Your task to perform on an android device: open chrome privacy settings Image 0: 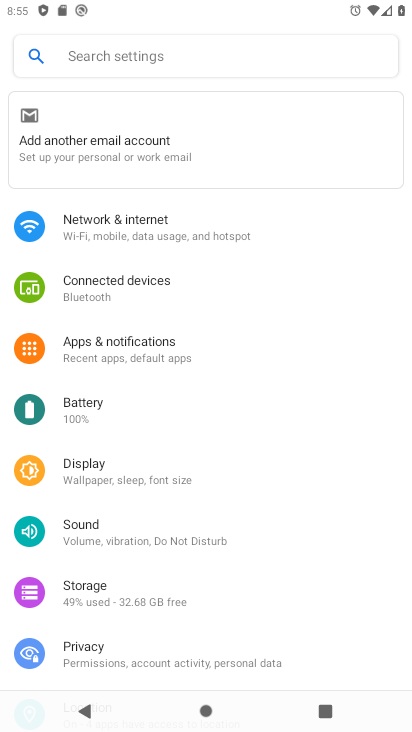
Step 0: press home button
Your task to perform on an android device: open chrome privacy settings Image 1: 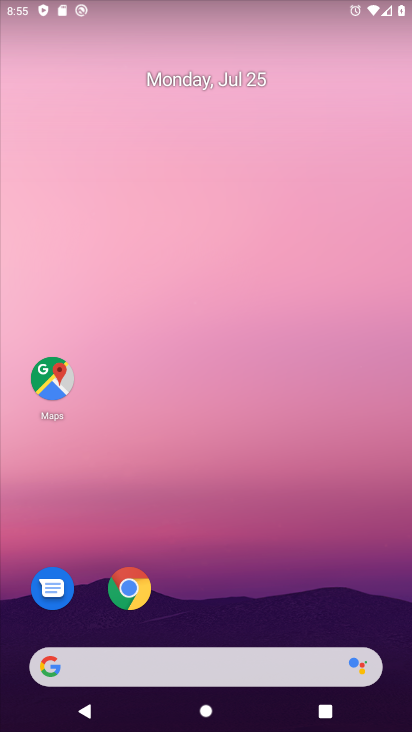
Step 1: click (131, 584)
Your task to perform on an android device: open chrome privacy settings Image 2: 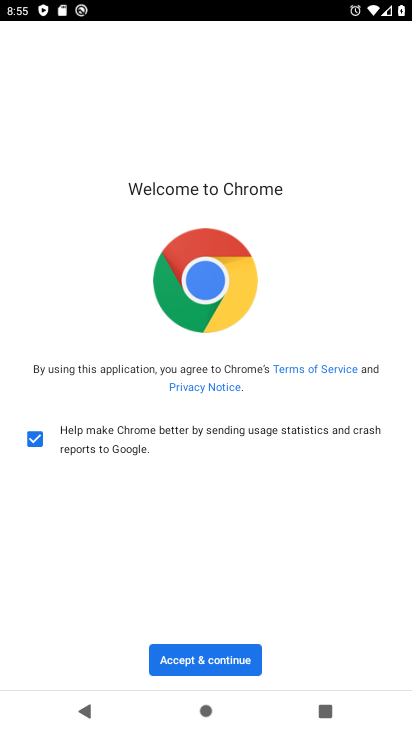
Step 2: click (196, 660)
Your task to perform on an android device: open chrome privacy settings Image 3: 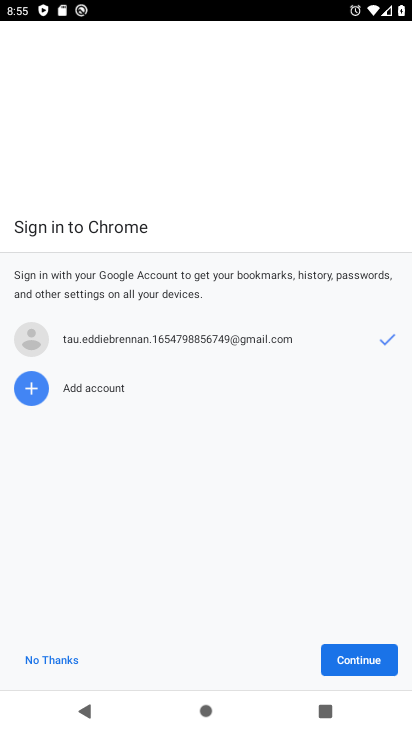
Step 3: click (374, 661)
Your task to perform on an android device: open chrome privacy settings Image 4: 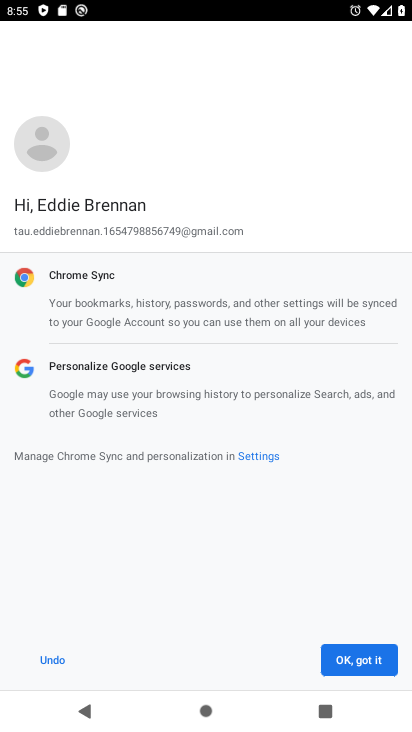
Step 4: click (374, 661)
Your task to perform on an android device: open chrome privacy settings Image 5: 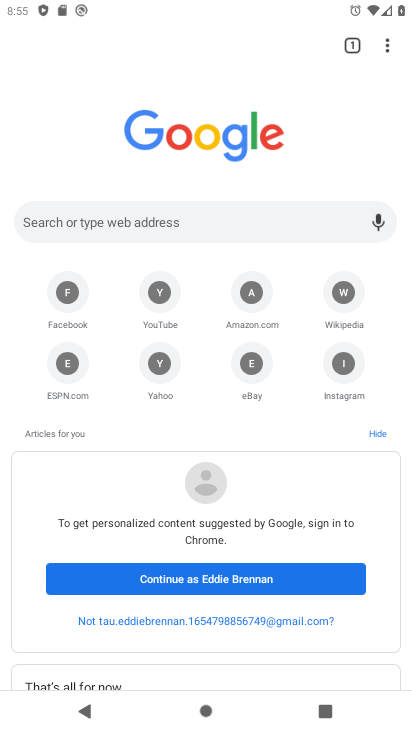
Step 5: drag from (390, 37) to (232, 370)
Your task to perform on an android device: open chrome privacy settings Image 6: 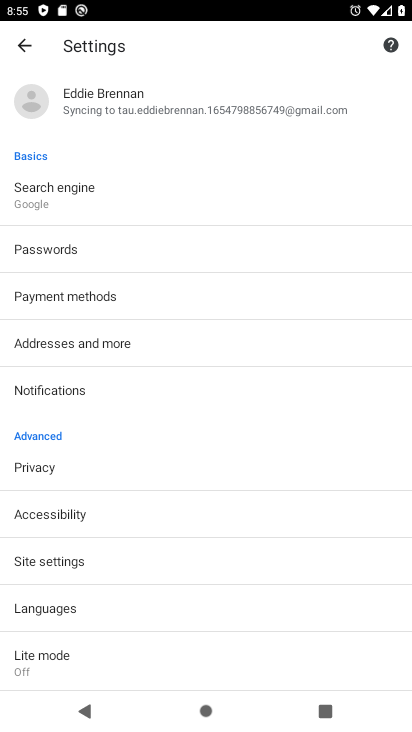
Step 6: click (24, 465)
Your task to perform on an android device: open chrome privacy settings Image 7: 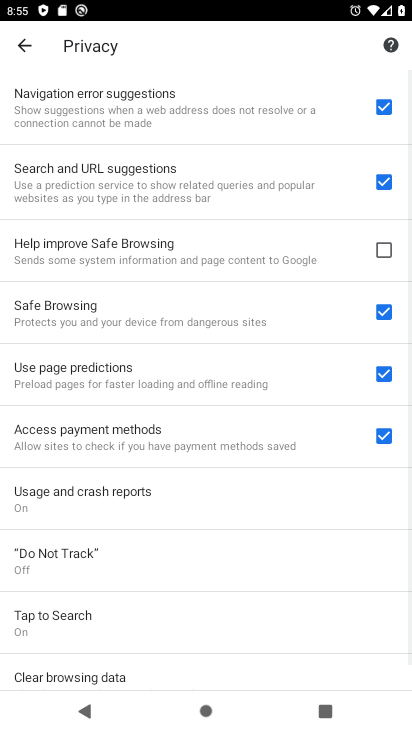
Step 7: task complete